Your task to perform on an android device: Do I have any events today? Image 0: 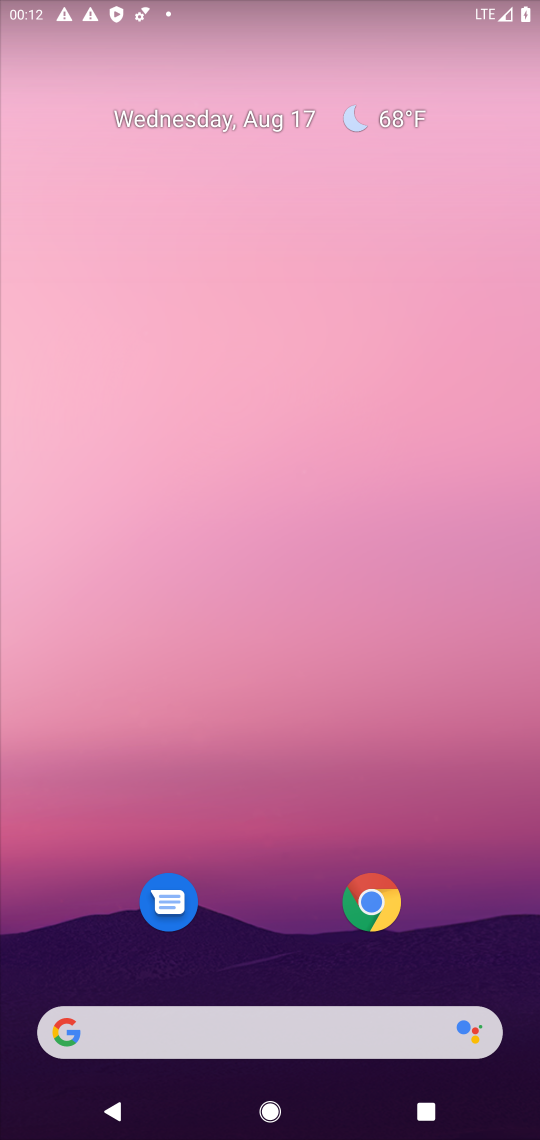
Step 0: drag from (286, 988) to (522, 22)
Your task to perform on an android device: Do I have any events today? Image 1: 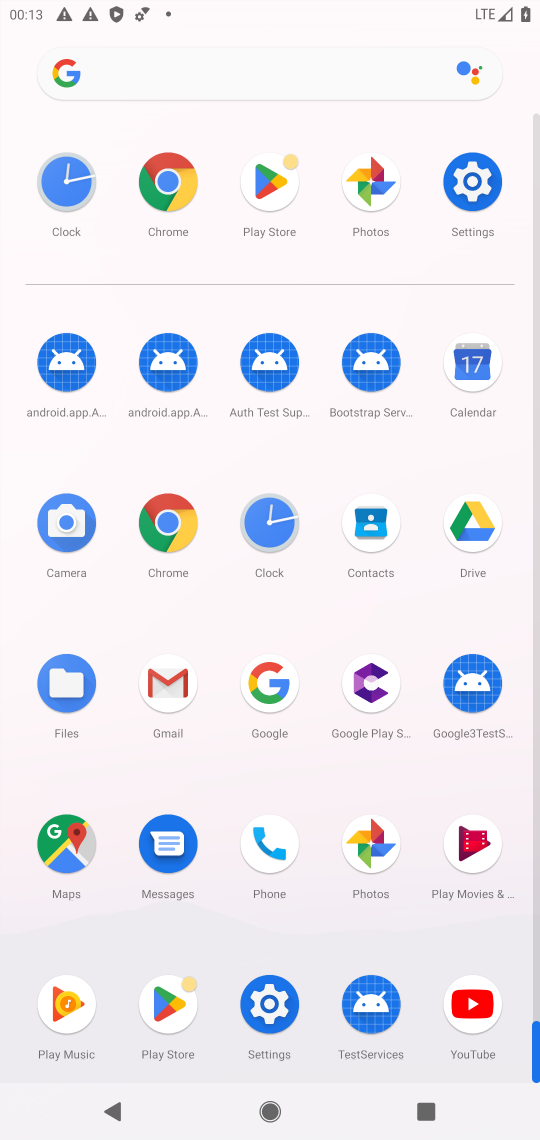
Step 1: click (476, 395)
Your task to perform on an android device: Do I have any events today? Image 2: 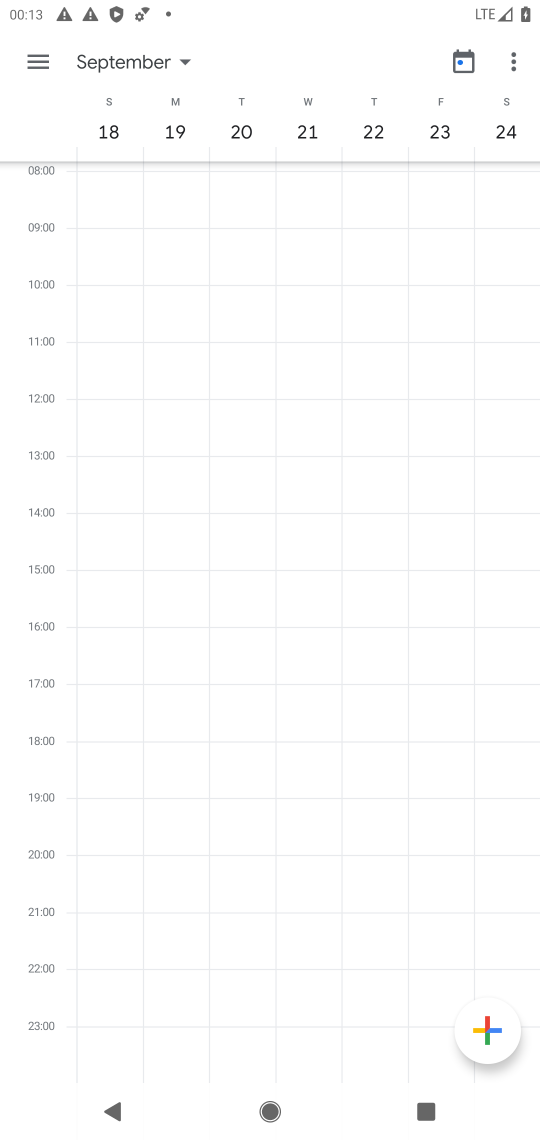
Step 2: click (128, 67)
Your task to perform on an android device: Do I have any events today? Image 3: 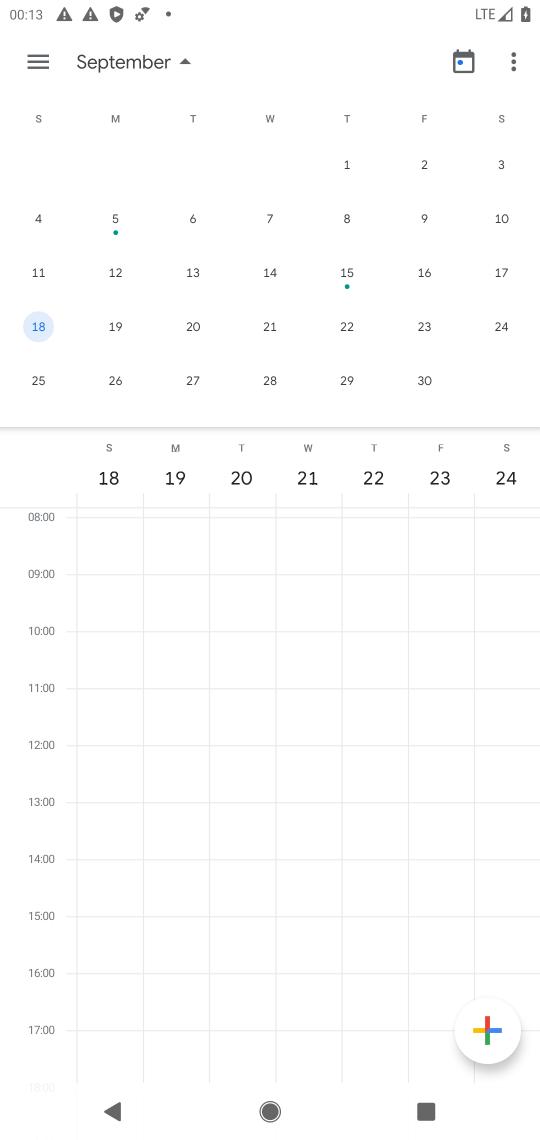
Step 3: drag from (110, 300) to (533, 430)
Your task to perform on an android device: Do I have any events today? Image 4: 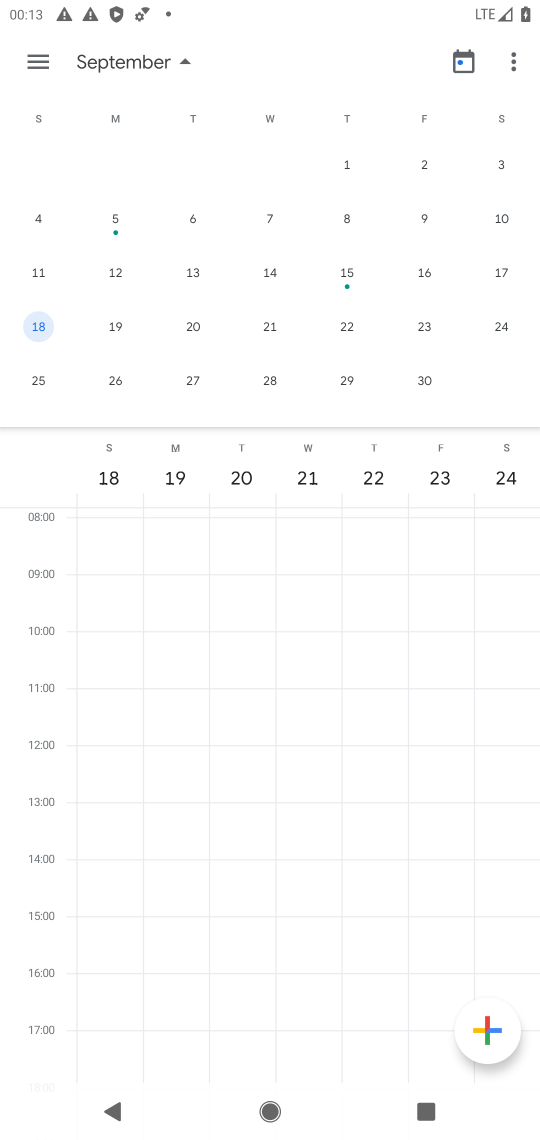
Step 4: drag from (150, 245) to (534, 296)
Your task to perform on an android device: Do I have any events today? Image 5: 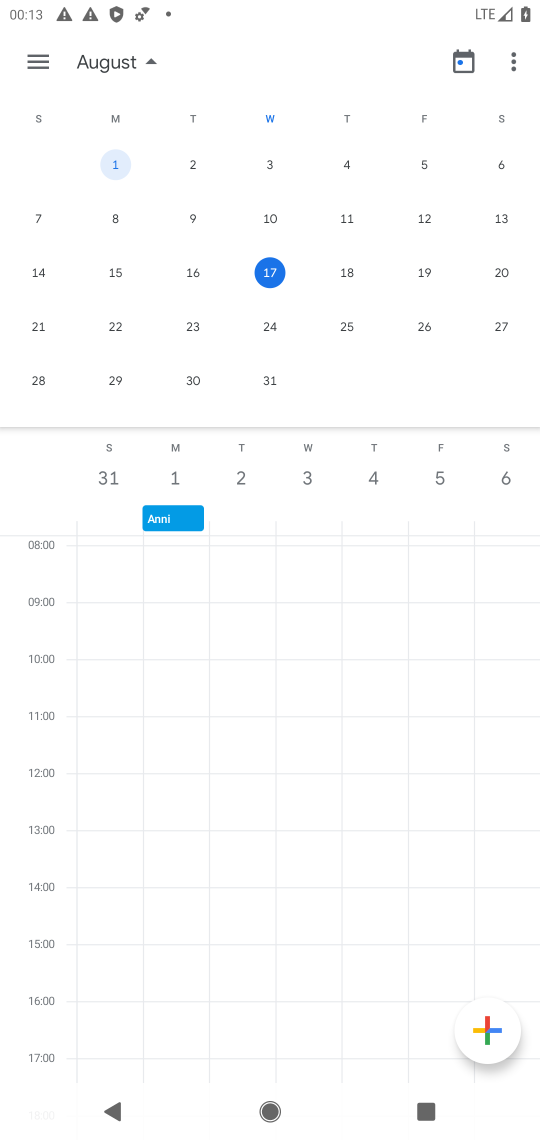
Step 5: click (283, 259)
Your task to perform on an android device: Do I have any events today? Image 6: 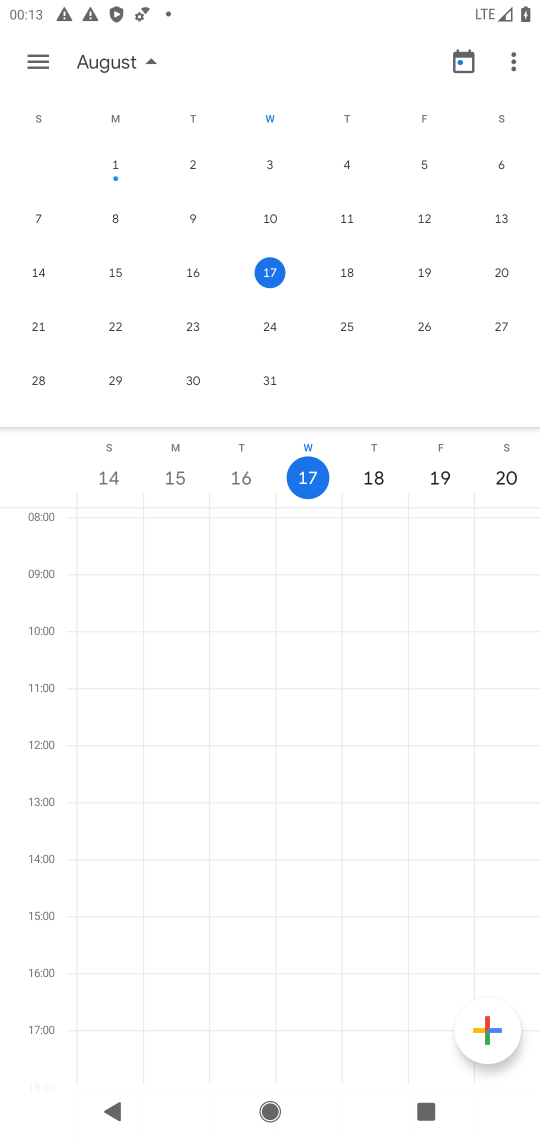
Step 6: click (42, 52)
Your task to perform on an android device: Do I have any events today? Image 7: 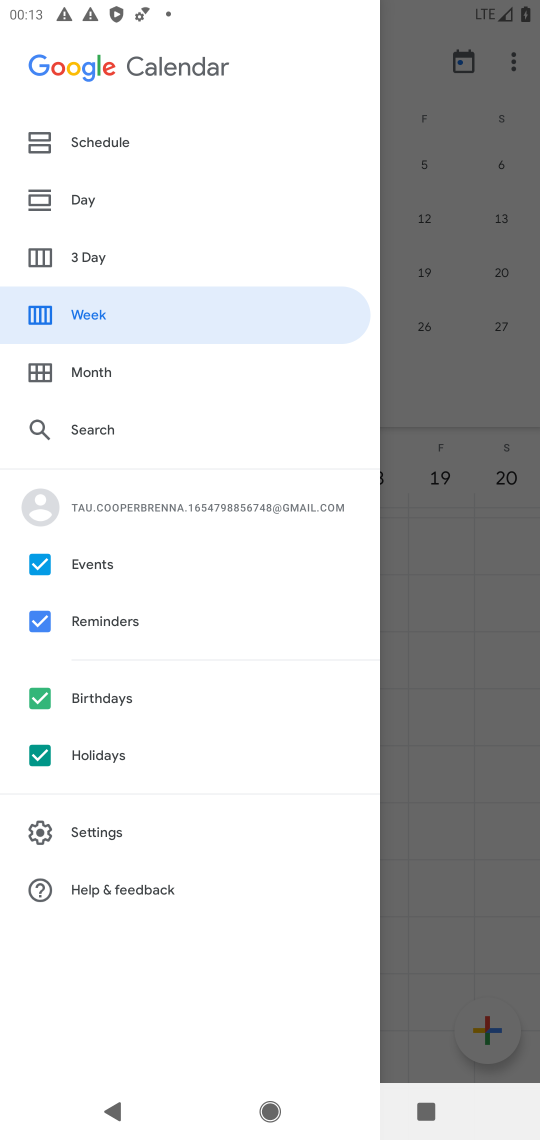
Step 7: click (72, 624)
Your task to perform on an android device: Do I have any events today? Image 8: 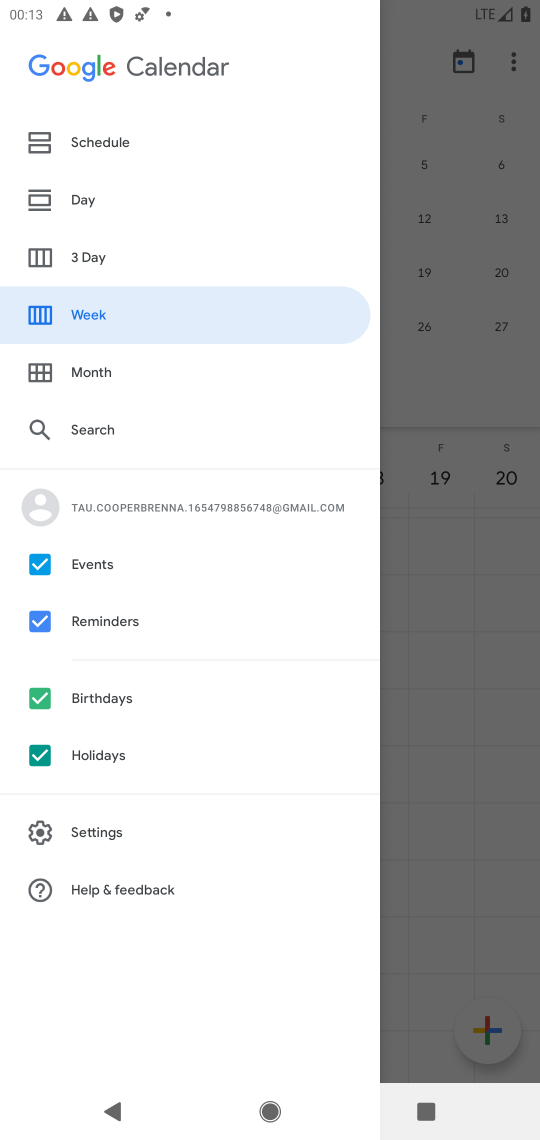
Step 8: click (75, 701)
Your task to perform on an android device: Do I have any events today? Image 9: 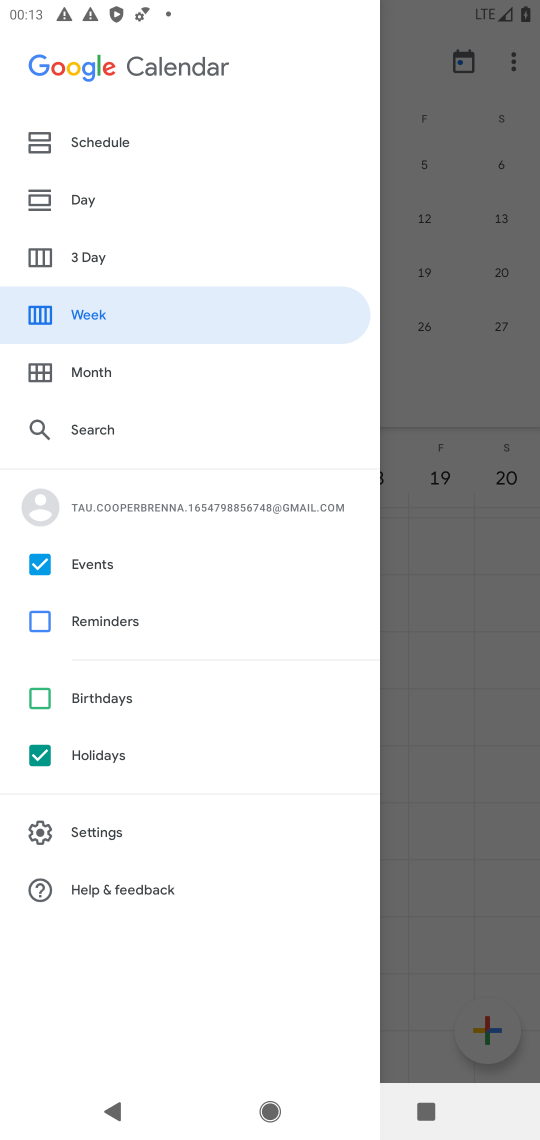
Step 9: click (81, 751)
Your task to perform on an android device: Do I have any events today? Image 10: 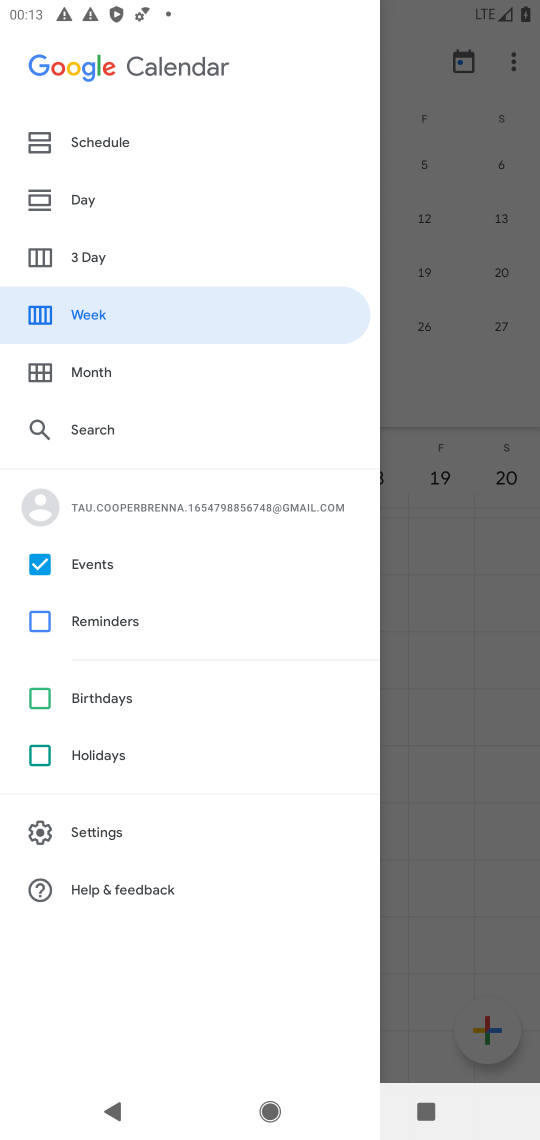
Step 10: click (120, 200)
Your task to perform on an android device: Do I have any events today? Image 11: 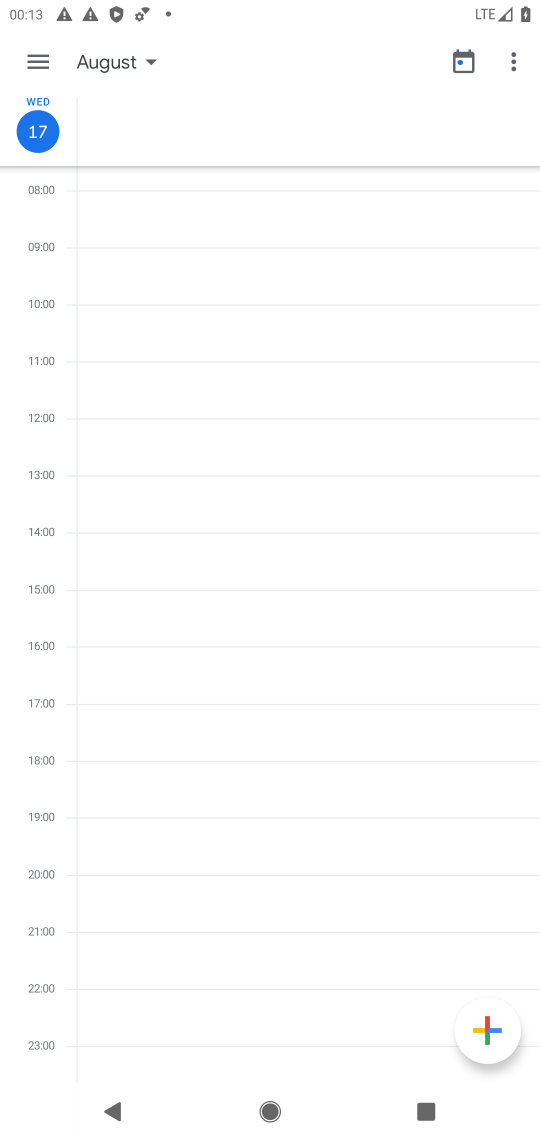
Step 11: task complete